Your task to perform on an android device: search for starred emails in the gmail app Image 0: 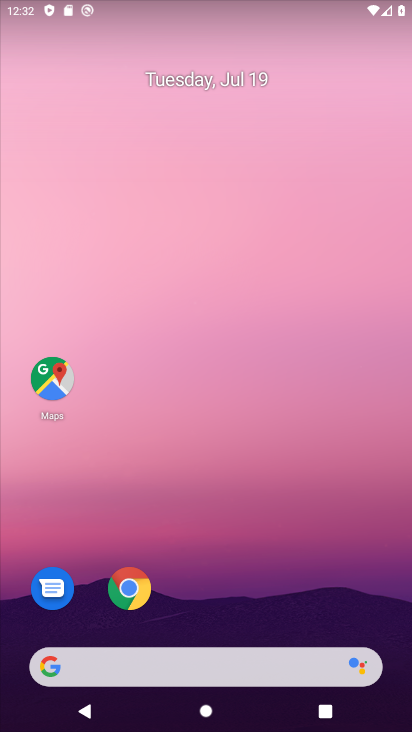
Step 0: drag from (297, 573) to (315, 0)
Your task to perform on an android device: search for starred emails in the gmail app Image 1: 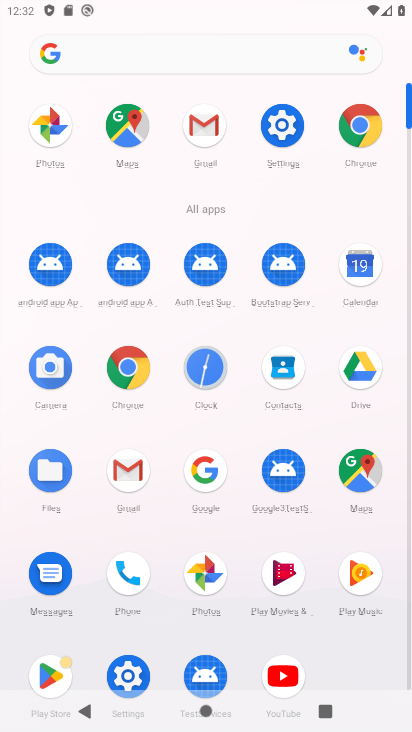
Step 1: click (208, 123)
Your task to perform on an android device: search for starred emails in the gmail app Image 2: 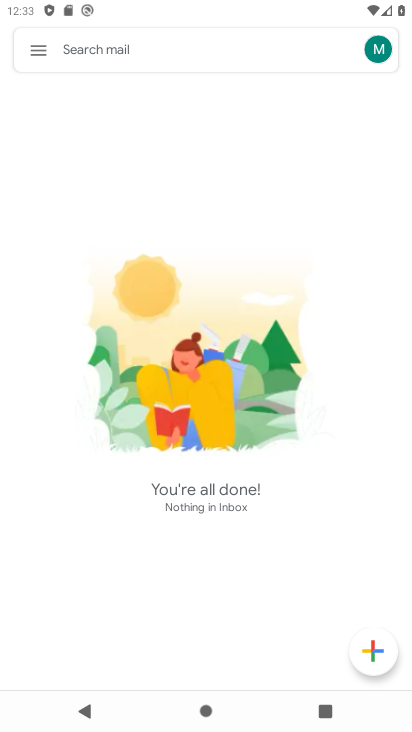
Step 2: click (43, 46)
Your task to perform on an android device: search for starred emails in the gmail app Image 3: 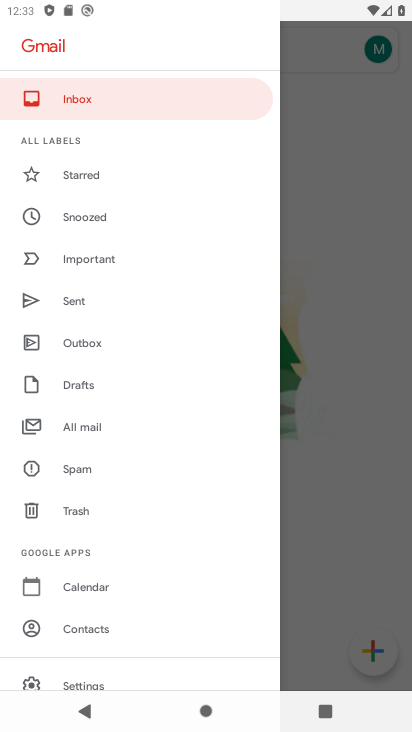
Step 3: click (71, 181)
Your task to perform on an android device: search for starred emails in the gmail app Image 4: 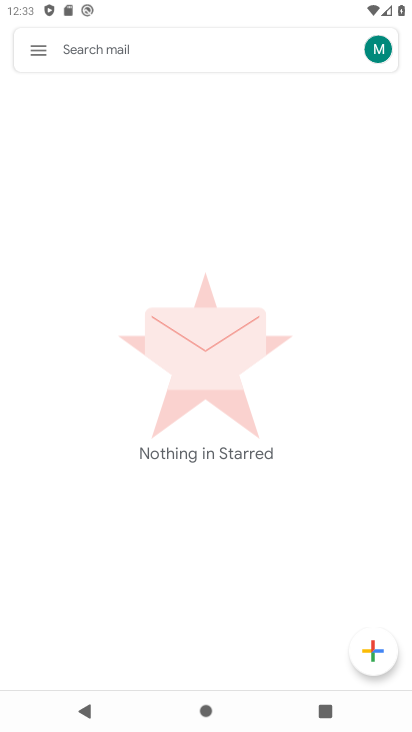
Step 4: task complete